Your task to perform on an android device: Open internet settings Image 0: 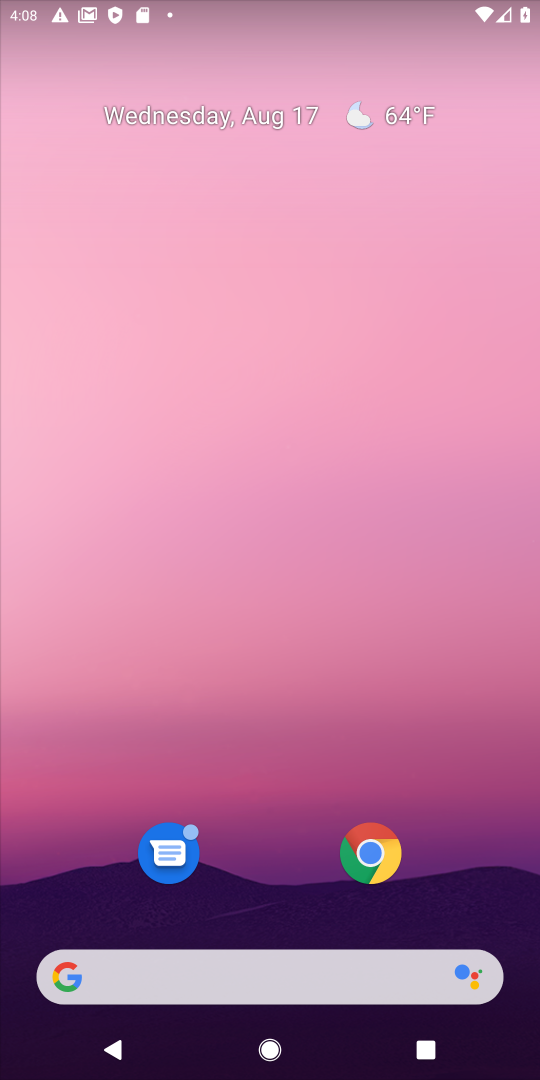
Step 0: drag from (493, 895) to (470, 13)
Your task to perform on an android device: Open internet settings Image 1: 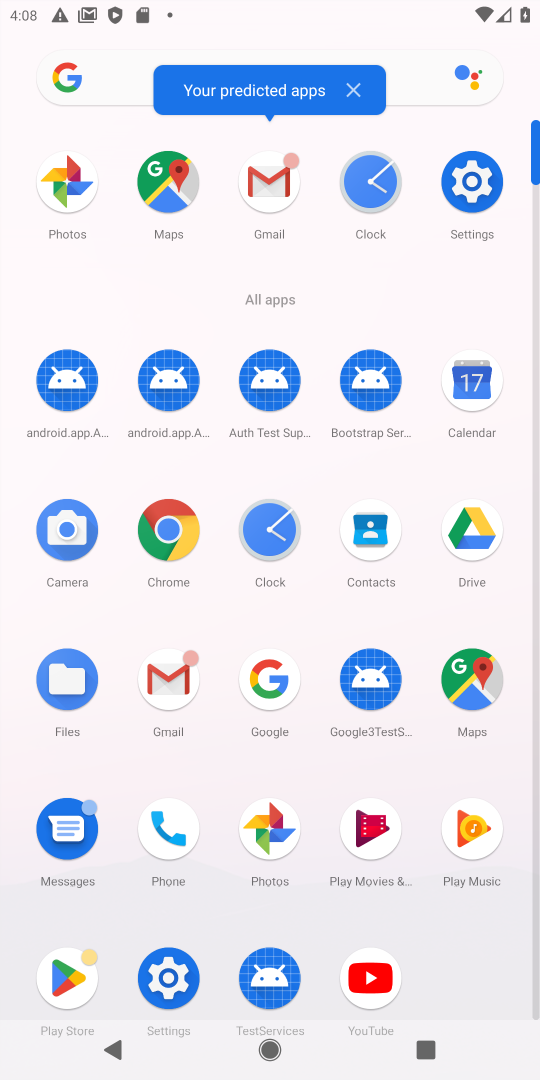
Step 1: click (172, 981)
Your task to perform on an android device: Open internet settings Image 2: 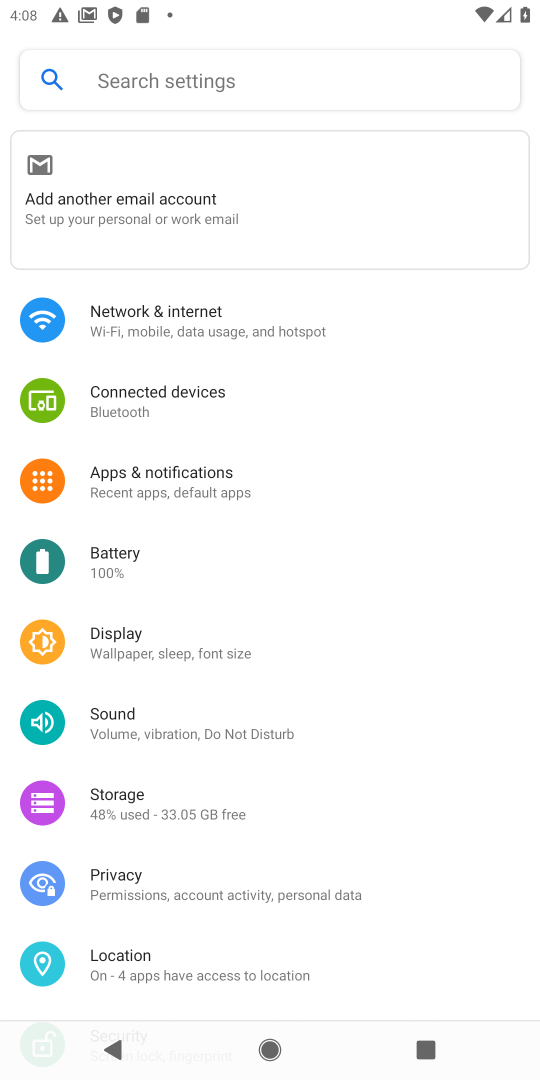
Step 2: click (131, 312)
Your task to perform on an android device: Open internet settings Image 3: 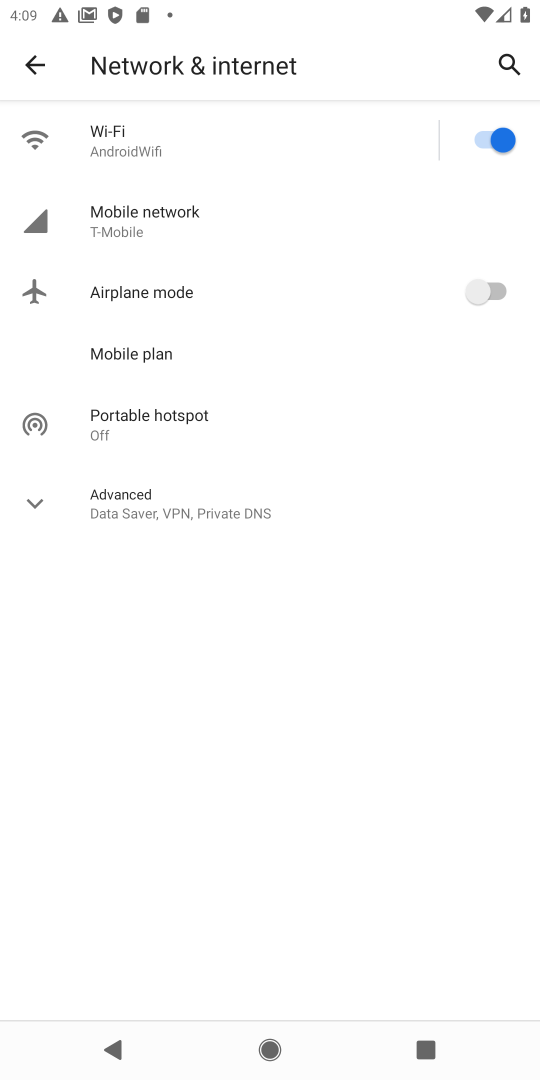
Step 3: click (114, 141)
Your task to perform on an android device: Open internet settings Image 4: 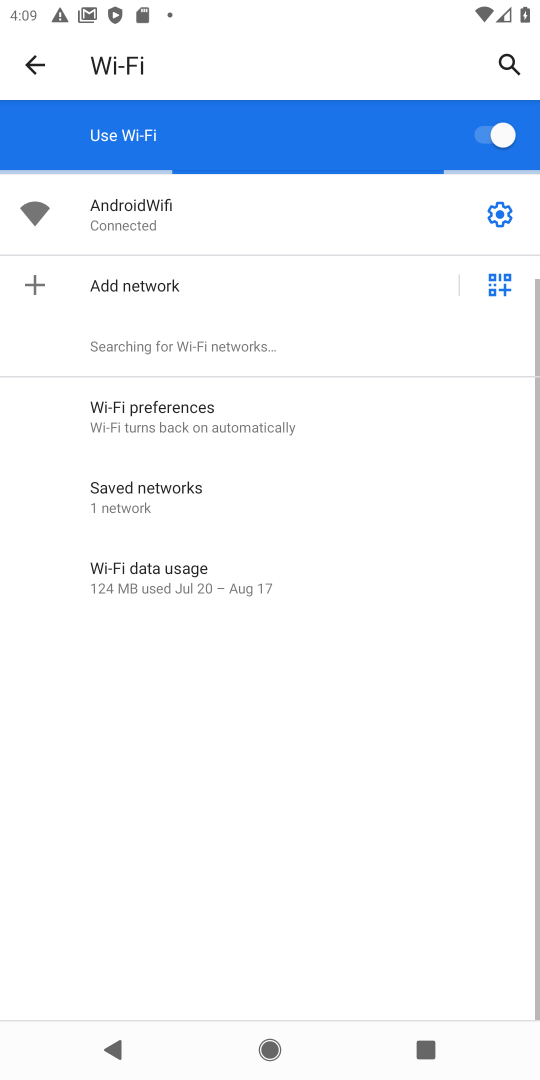
Step 4: task complete